Your task to perform on an android device: Open display settings Image 0: 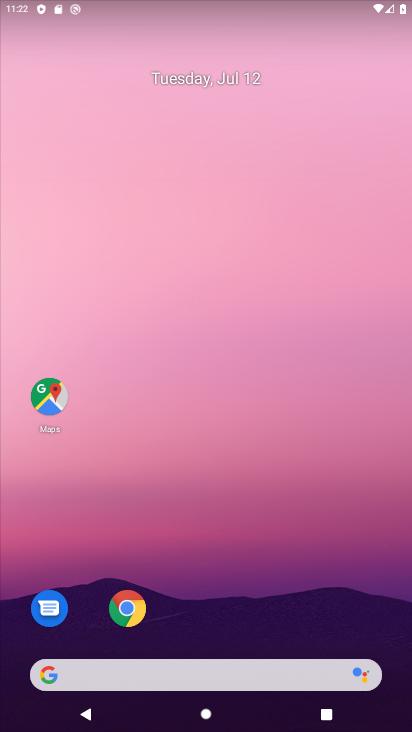
Step 0: drag from (225, 637) to (171, 74)
Your task to perform on an android device: Open display settings Image 1: 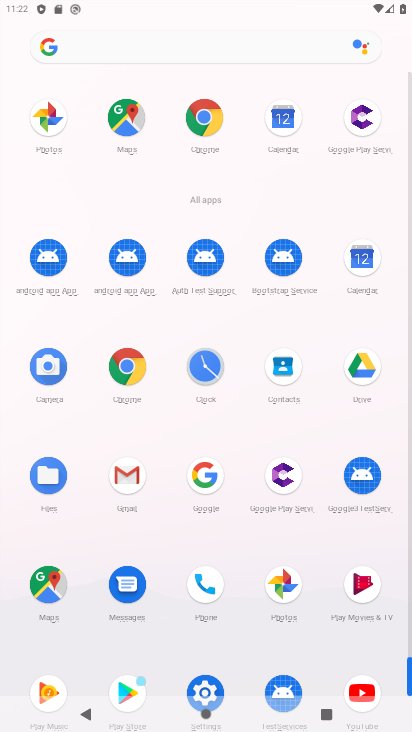
Step 1: click (225, 680)
Your task to perform on an android device: Open display settings Image 2: 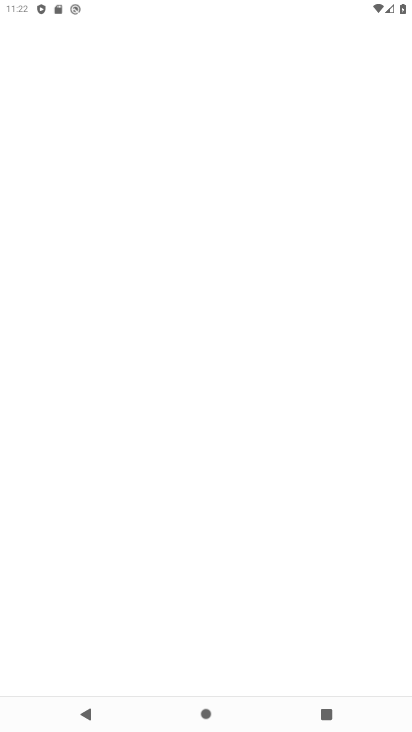
Step 2: click (207, 680)
Your task to perform on an android device: Open display settings Image 3: 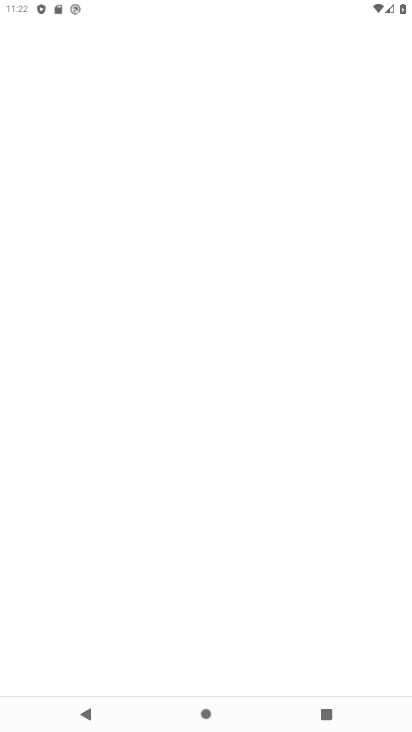
Step 3: click (210, 680)
Your task to perform on an android device: Open display settings Image 4: 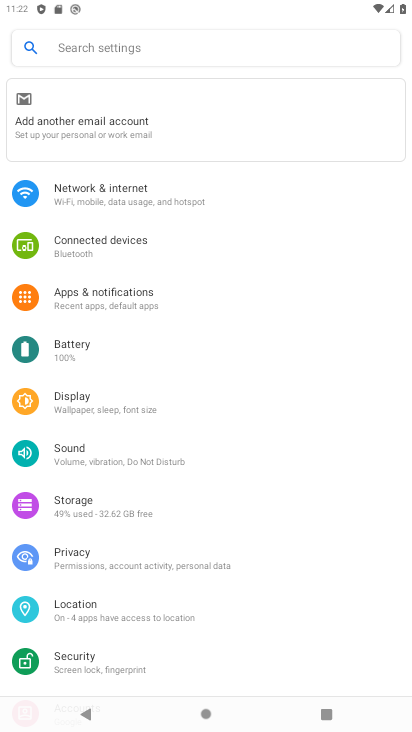
Step 4: click (67, 284)
Your task to perform on an android device: Open display settings Image 5: 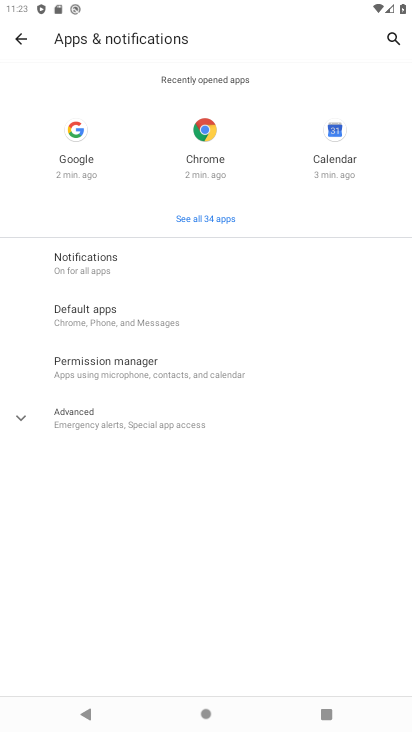
Step 5: click (92, 398)
Your task to perform on an android device: Open display settings Image 6: 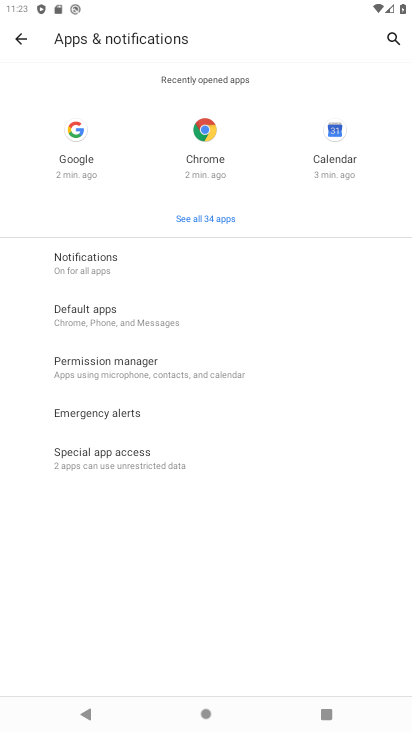
Step 6: click (19, 36)
Your task to perform on an android device: Open display settings Image 7: 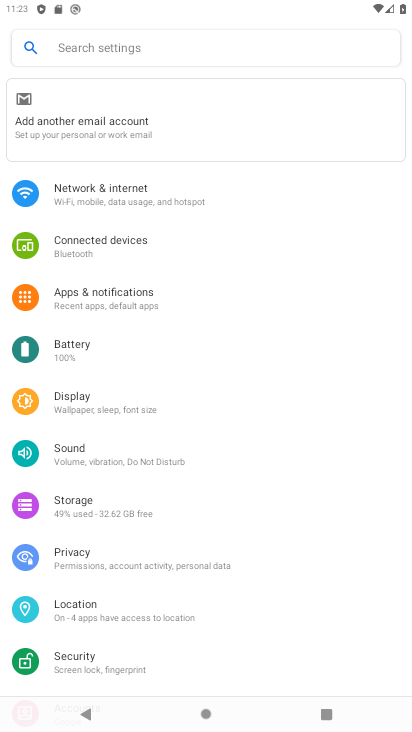
Step 7: click (17, 36)
Your task to perform on an android device: Open display settings Image 8: 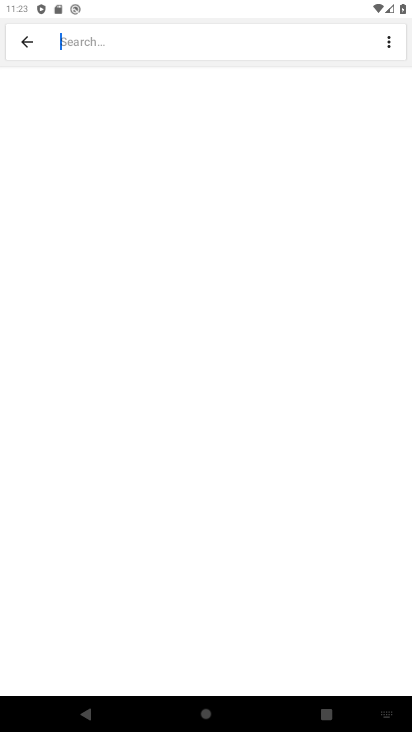
Step 8: task complete